Your task to perform on an android device: delete a single message in the gmail app Image 0: 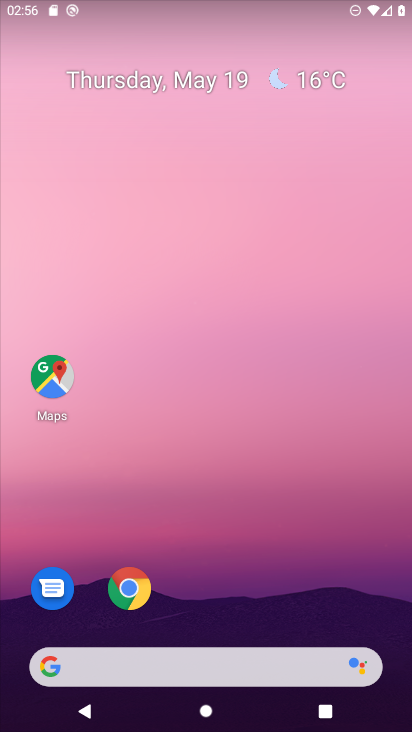
Step 0: drag from (219, 596) to (304, 14)
Your task to perform on an android device: delete a single message in the gmail app Image 1: 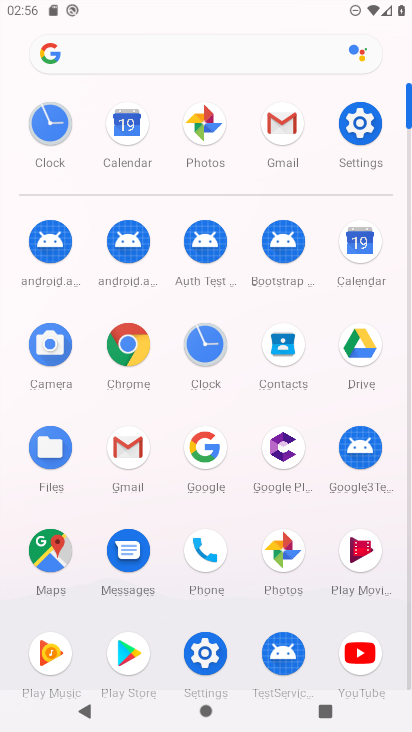
Step 1: click (280, 152)
Your task to perform on an android device: delete a single message in the gmail app Image 2: 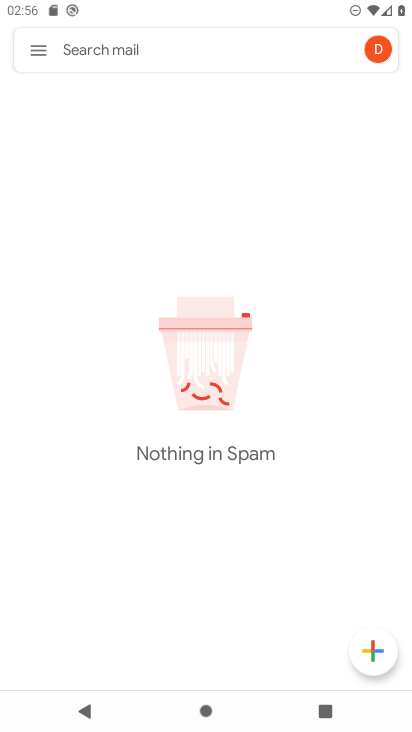
Step 2: click (44, 45)
Your task to perform on an android device: delete a single message in the gmail app Image 3: 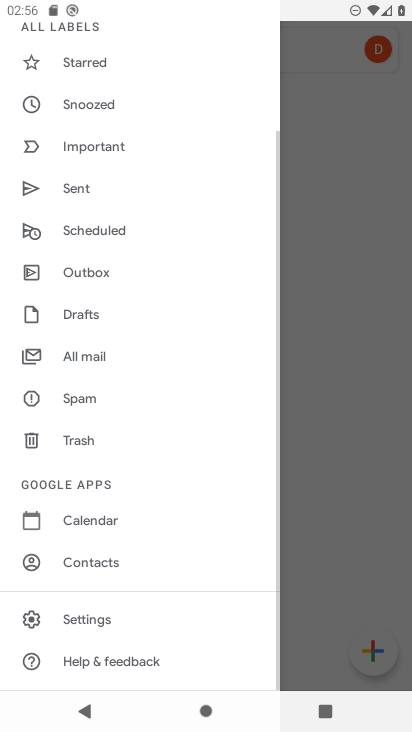
Step 3: click (79, 351)
Your task to perform on an android device: delete a single message in the gmail app Image 4: 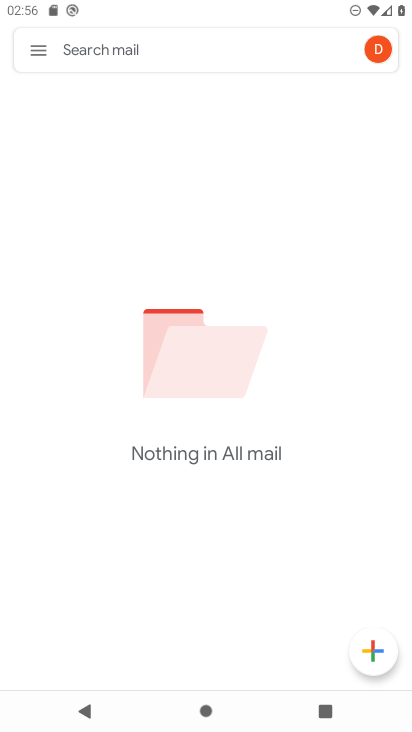
Step 4: task complete